Your task to perform on an android device: Open the Play Movies app and select the watchlist tab. Image 0: 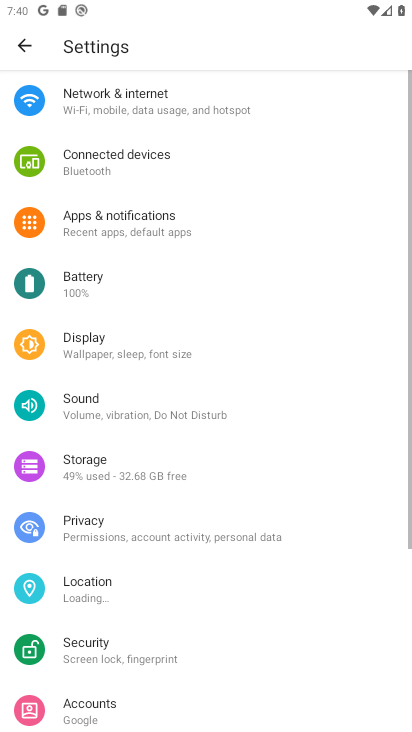
Step 0: press home button
Your task to perform on an android device: Open the Play Movies app and select the watchlist tab. Image 1: 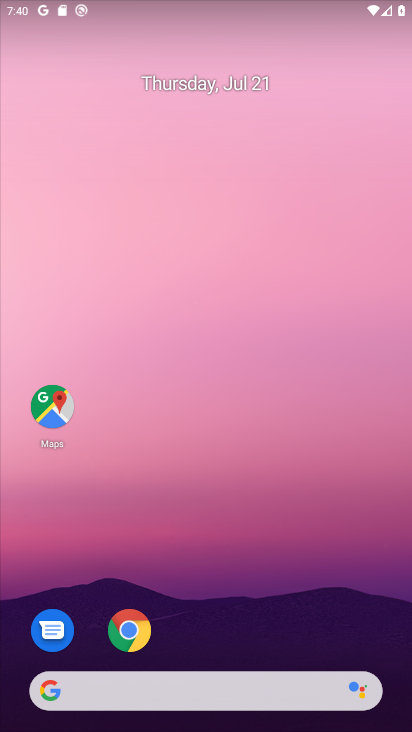
Step 1: drag from (210, 656) to (105, 87)
Your task to perform on an android device: Open the Play Movies app and select the watchlist tab. Image 2: 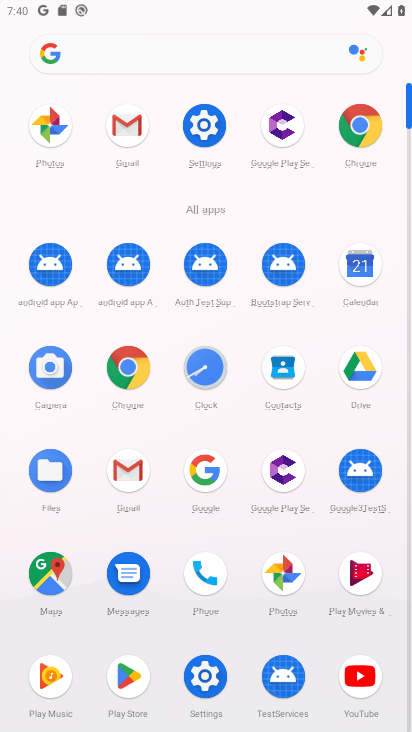
Step 2: click (351, 597)
Your task to perform on an android device: Open the Play Movies app and select the watchlist tab. Image 3: 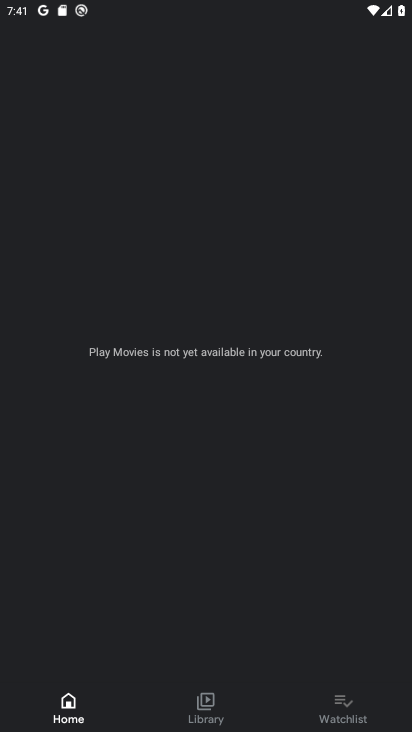
Step 3: click (337, 699)
Your task to perform on an android device: Open the Play Movies app and select the watchlist tab. Image 4: 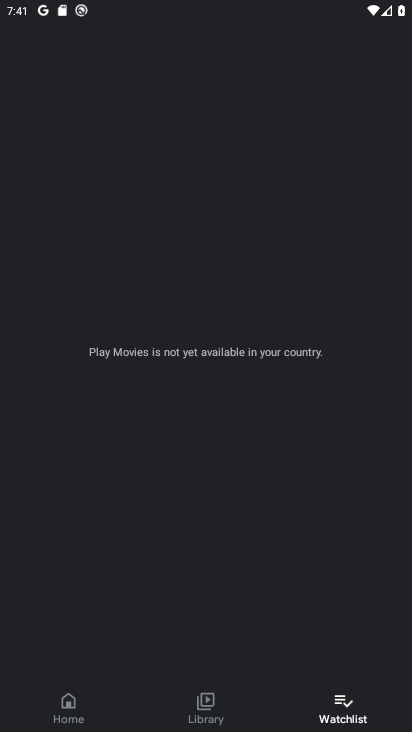
Step 4: task complete